Your task to perform on an android device: empty trash in the gmail app Image 0: 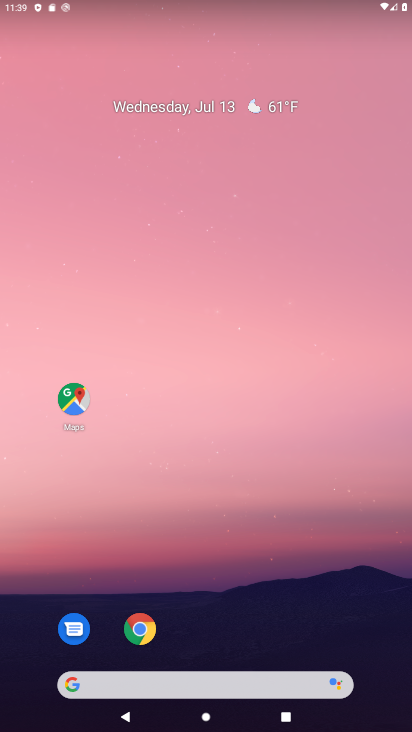
Step 0: drag from (217, 652) to (265, 5)
Your task to perform on an android device: empty trash in the gmail app Image 1: 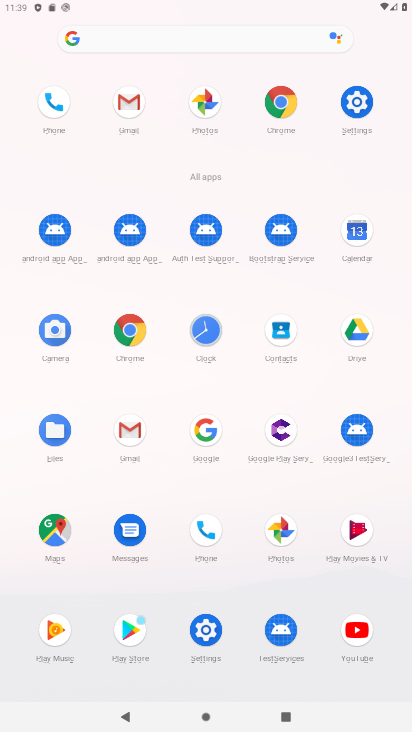
Step 1: click (127, 438)
Your task to perform on an android device: empty trash in the gmail app Image 2: 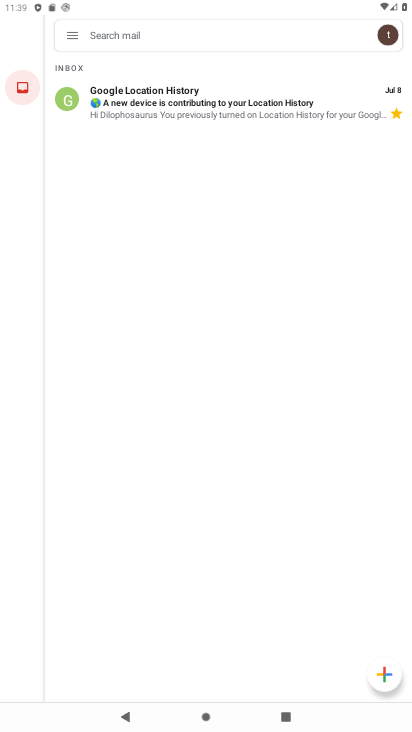
Step 2: click (75, 25)
Your task to perform on an android device: empty trash in the gmail app Image 3: 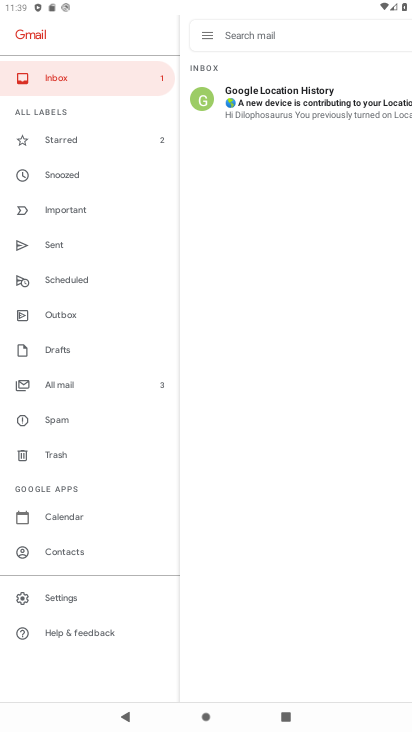
Step 3: click (50, 462)
Your task to perform on an android device: empty trash in the gmail app Image 4: 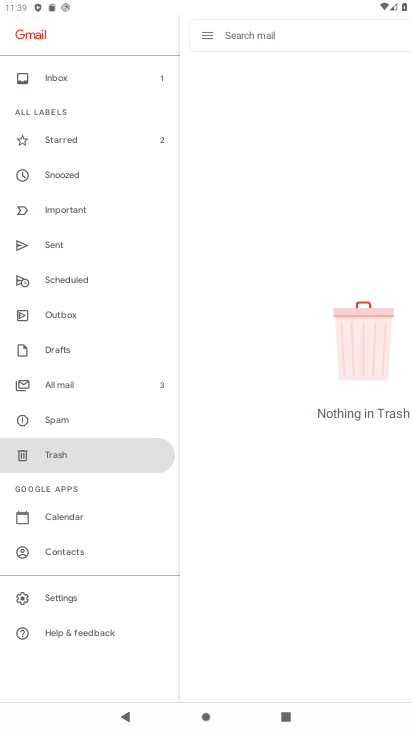
Step 4: task complete